Your task to perform on an android device: change the clock display to show seconds Image 0: 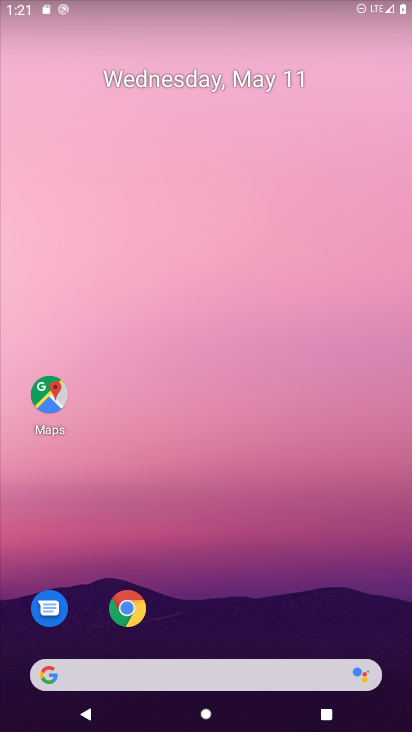
Step 0: drag from (258, 543) to (216, 53)
Your task to perform on an android device: change the clock display to show seconds Image 1: 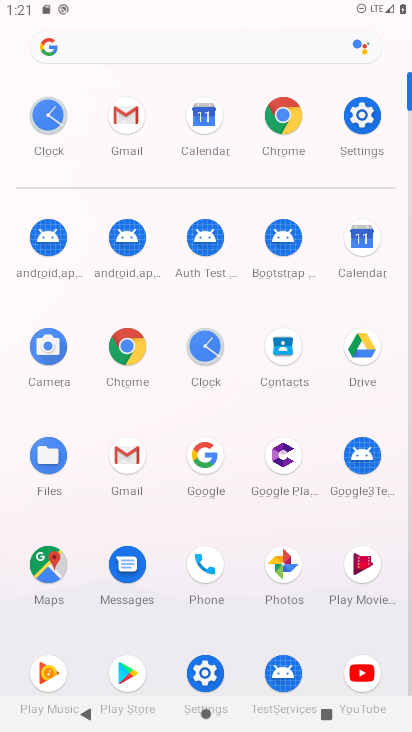
Step 1: click (54, 116)
Your task to perform on an android device: change the clock display to show seconds Image 2: 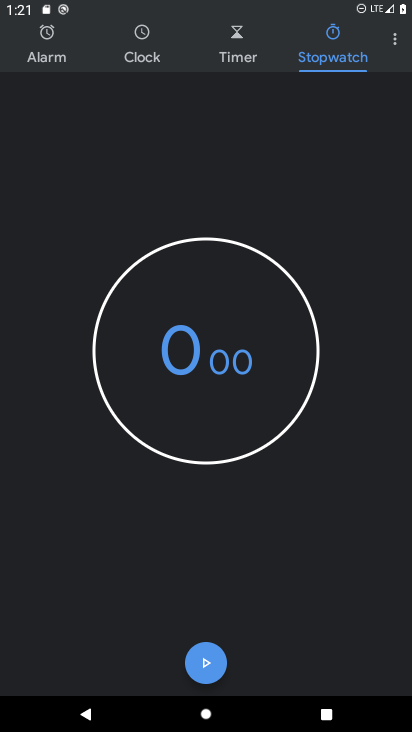
Step 2: click (396, 38)
Your task to perform on an android device: change the clock display to show seconds Image 3: 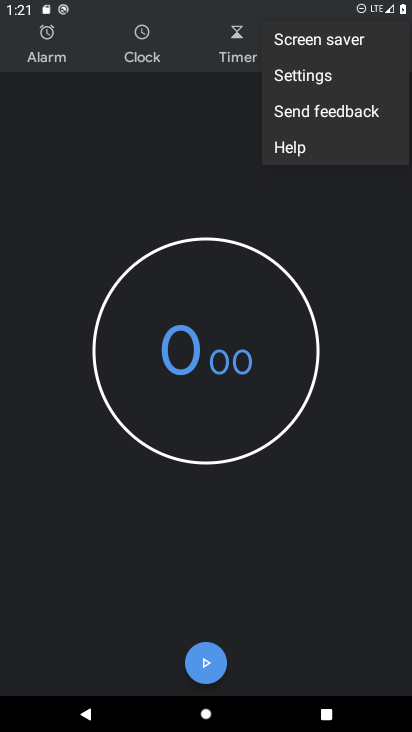
Step 3: click (336, 72)
Your task to perform on an android device: change the clock display to show seconds Image 4: 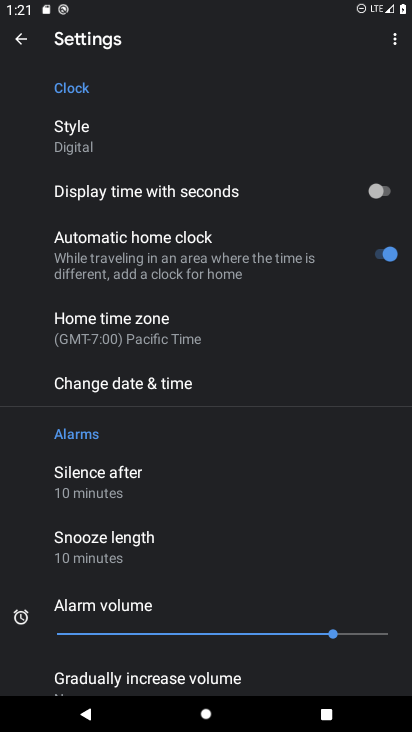
Step 4: click (386, 189)
Your task to perform on an android device: change the clock display to show seconds Image 5: 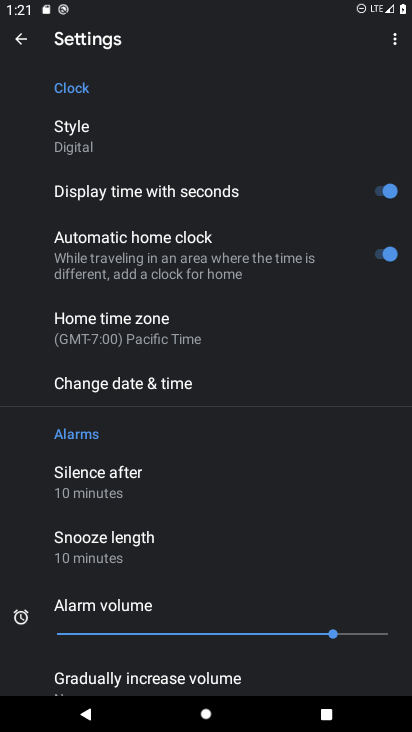
Step 5: task complete